Your task to perform on an android device: What's the weather going to be tomorrow? Image 0: 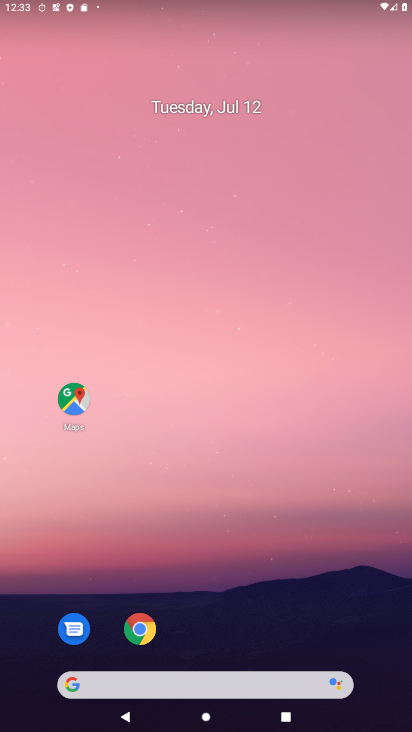
Step 0: press home button
Your task to perform on an android device: What's the weather going to be tomorrow? Image 1: 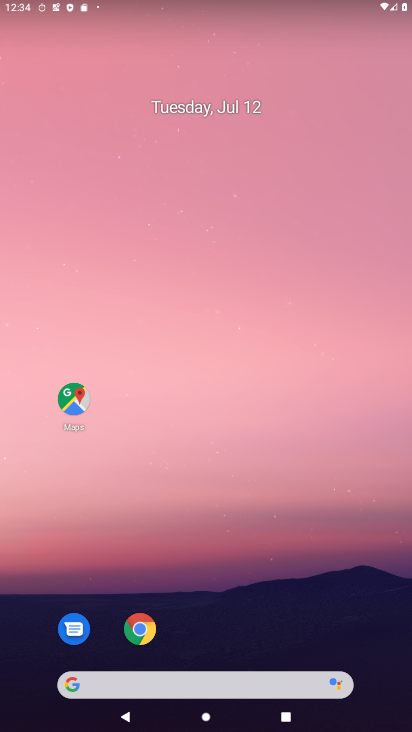
Step 1: click (152, 629)
Your task to perform on an android device: What's the weather going to be tomorrow? Image 2: 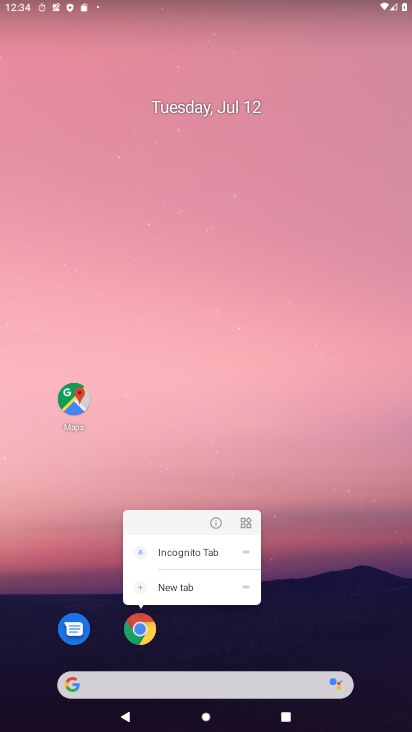
Step 2: click (152, 629)
Your task to perform on an android device: What's the weather going to be tomorrow? Image 3: 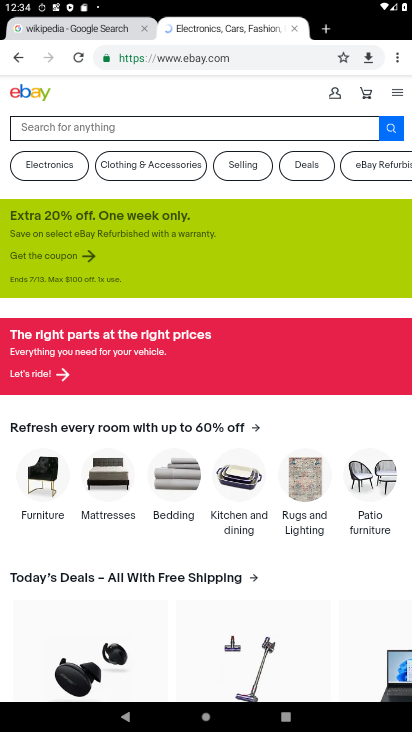
Step 3: click (216, 49)
Your task to perform on an android device: What's the weather going to be tomorrow? Image 4: 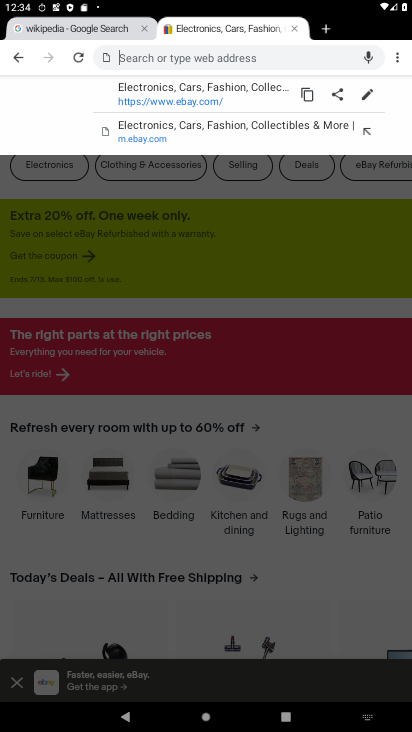
Step 4: type "What's the weather going to be tomorrow?"
Your task to perform on an android device: What's the weather going to be tomorrow? Image 5: 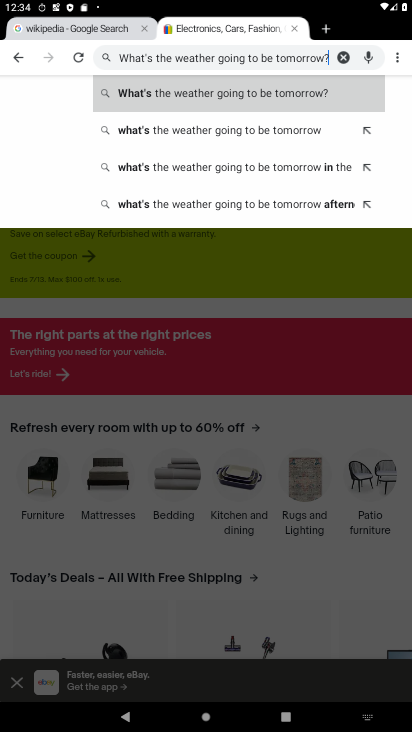
Step 5: type ""
Your task to perform on an android device: What's the weather going to be tomorrow? Image 6: 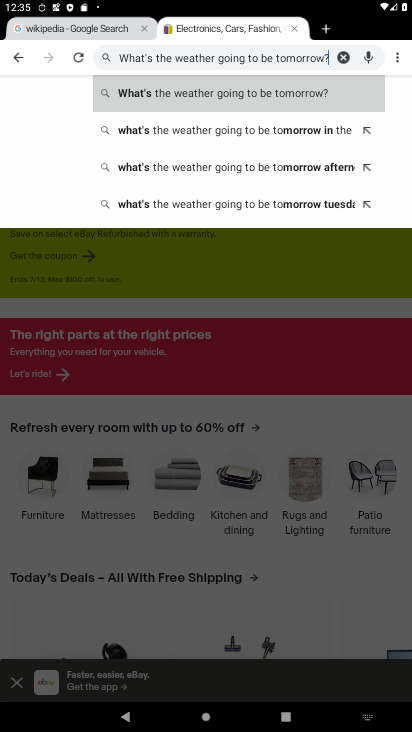
Step 6: click (186, 90)
Your task to perform on an android device: What's the weather going to be tomorrow? Image 7: 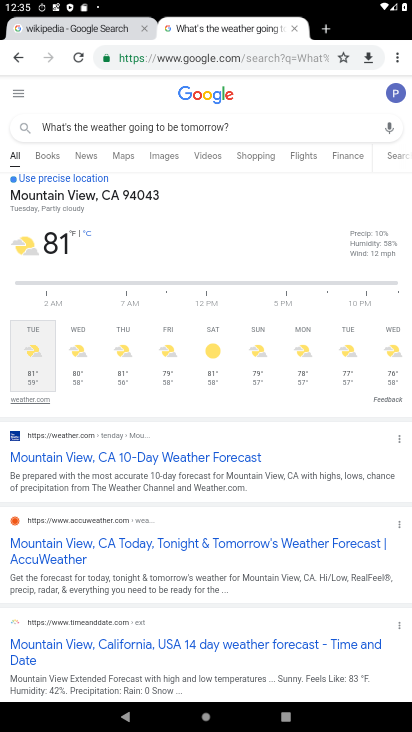
Step 7: task complete